Your task to perform on an android device: install app "Adobe Express: Graphic Design" Image 0: 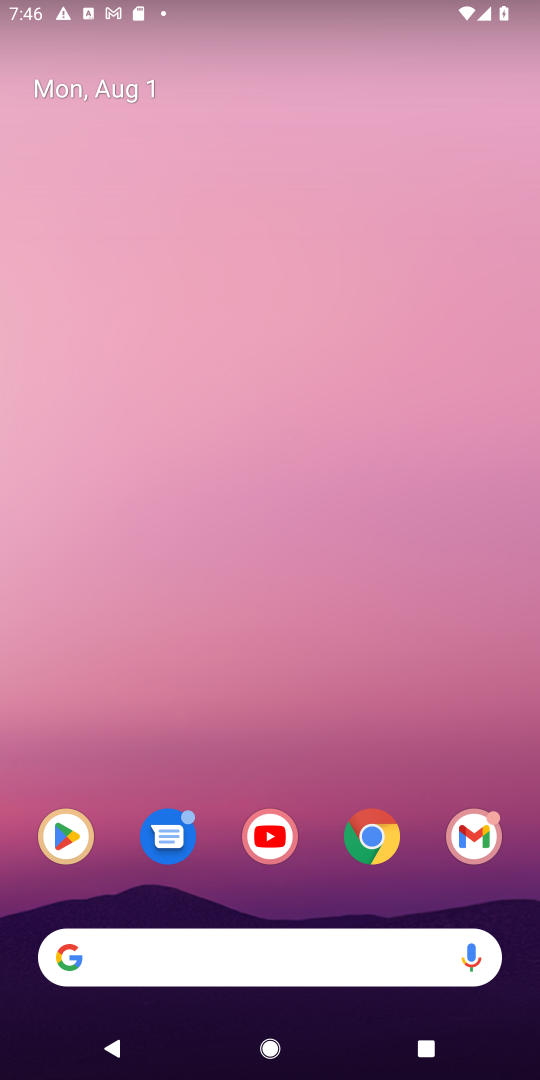
Step 0: press home button
Your task to perform on an android device: install app "Adobe Express: Graphic Design" Image 1: 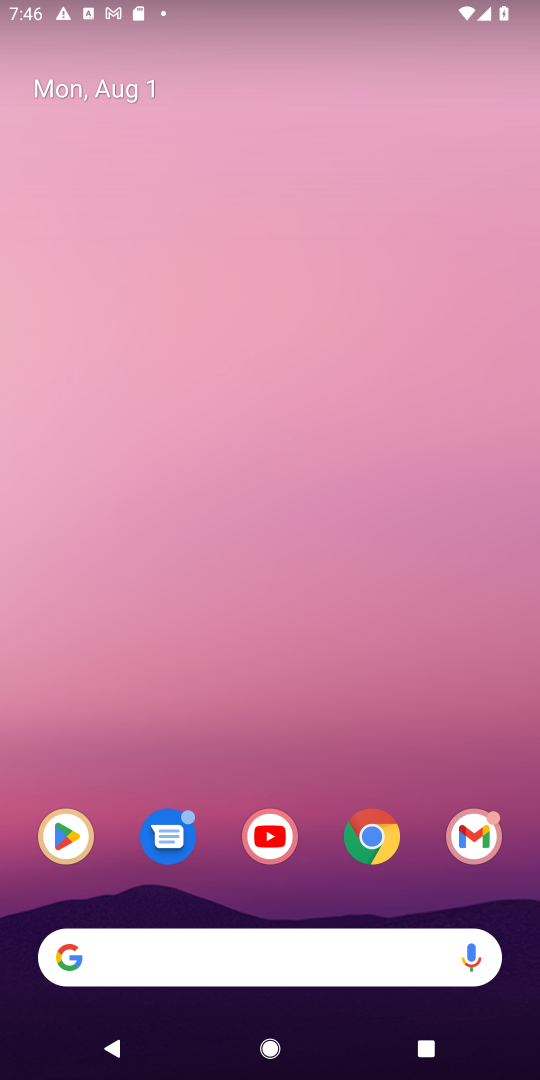
Step 1: click (63, 835)
Your task to perform on an android device: install app "Adobe Express: Graphic Design" Image 2: 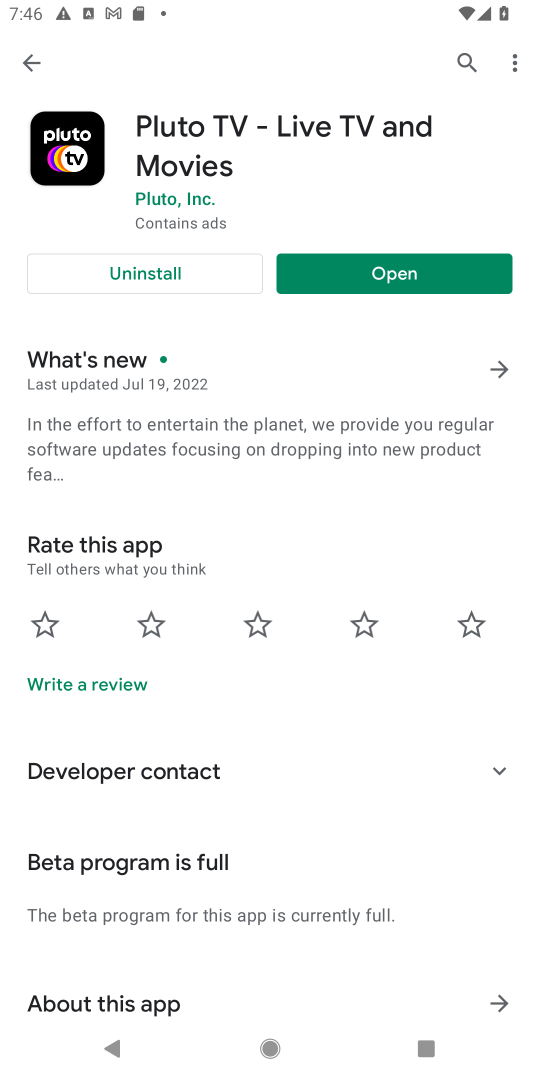
Step 2: click (460, 52)
Your task to perform on an android device: install app "Adobe Express: Graphic Design" Image 3: 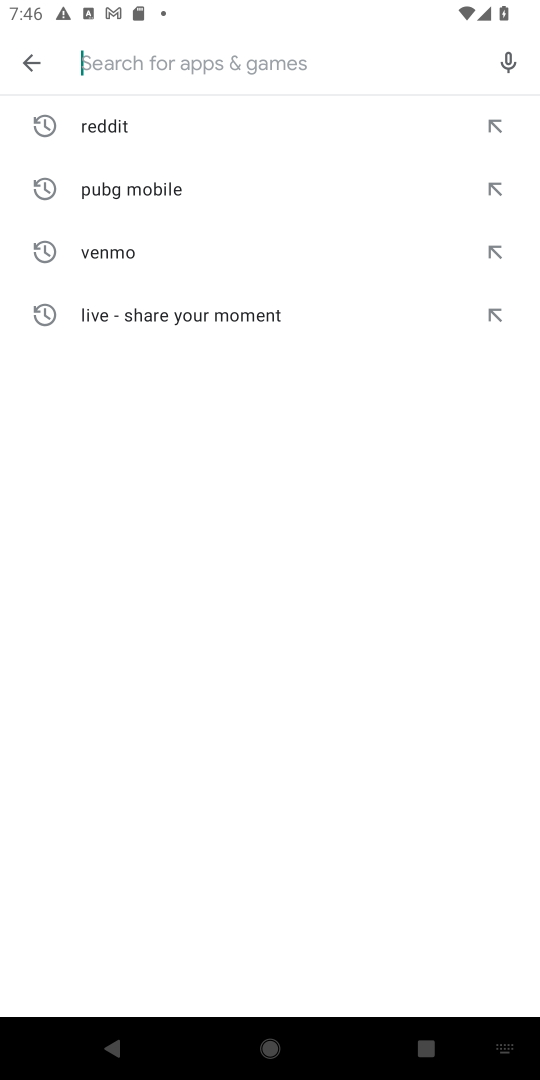
Step 3: type "Adobe Express: Graphic Design"
Your task to perform on an android device: install app "Adobe Express: Graphic Design" Image 4: 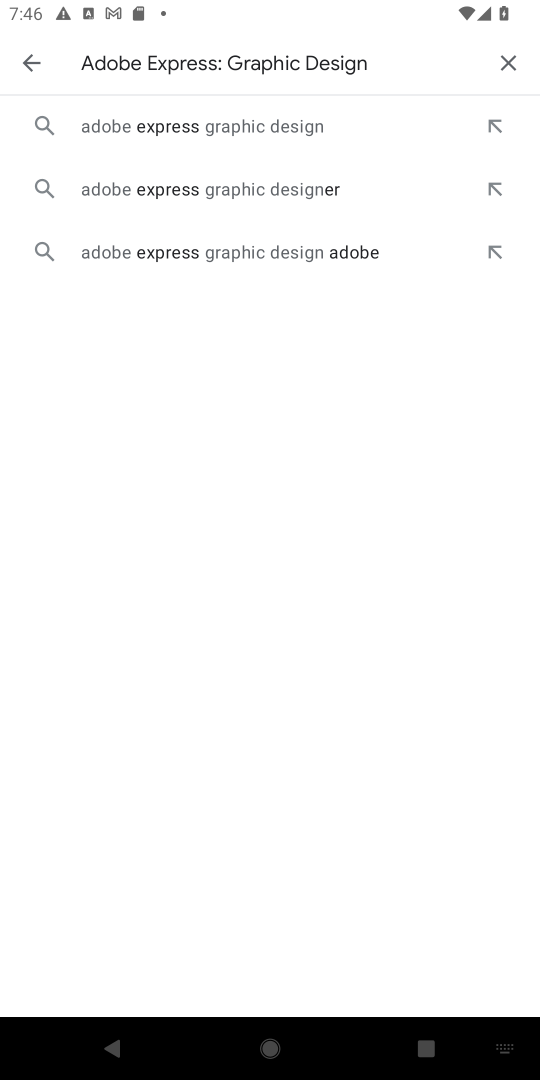
Step 4: click (198, 125)
Your task to perform on an android device: install app "Adobe Express: Graphic Design" Image 5: 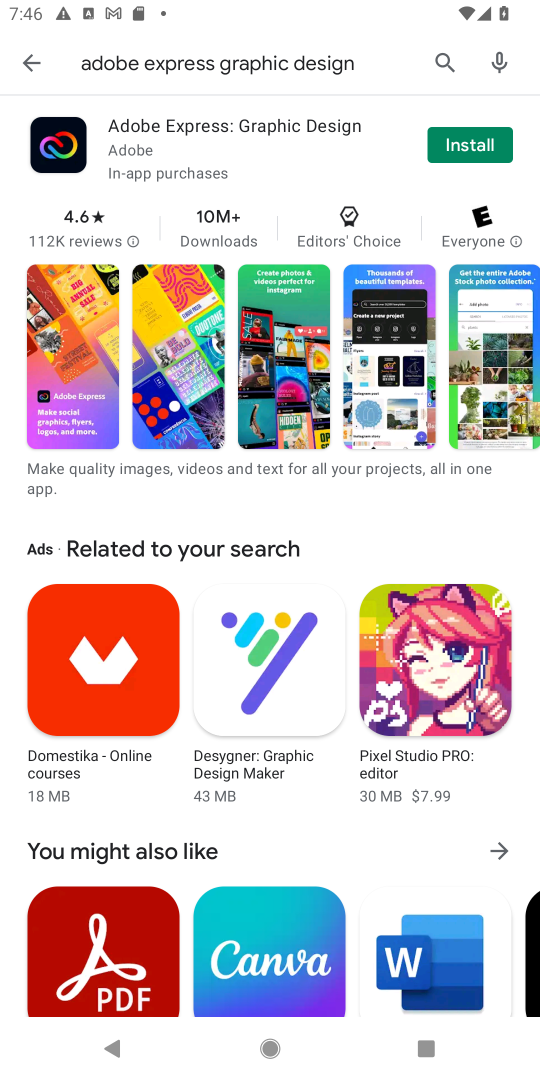
Step 5: click (486, 139)
Your task to perform on an android device: install app "Adobe Express: Graphic Design" Image 6: 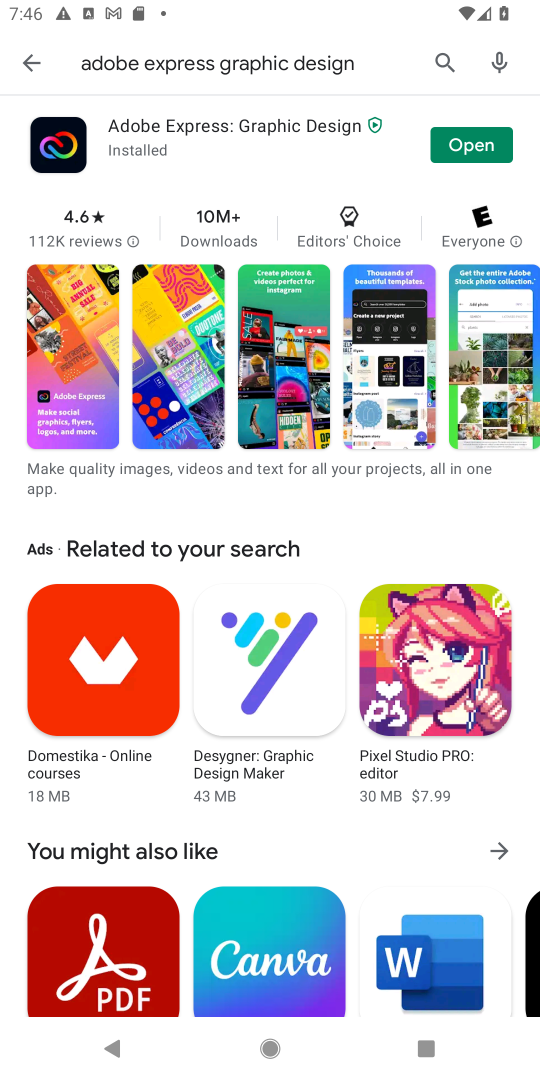
Step 6: task complete